Your task to perform on an android device: turn on improve location accuracy Image 0: 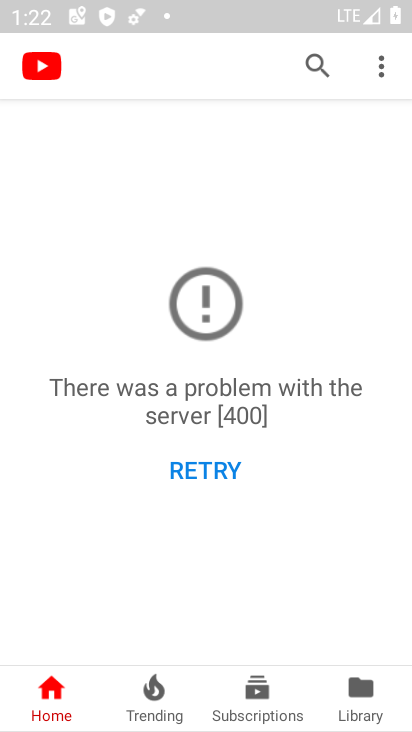
Step 0: press home button
Your task to perform on an android device: turn on improve location accuracy Image 1: 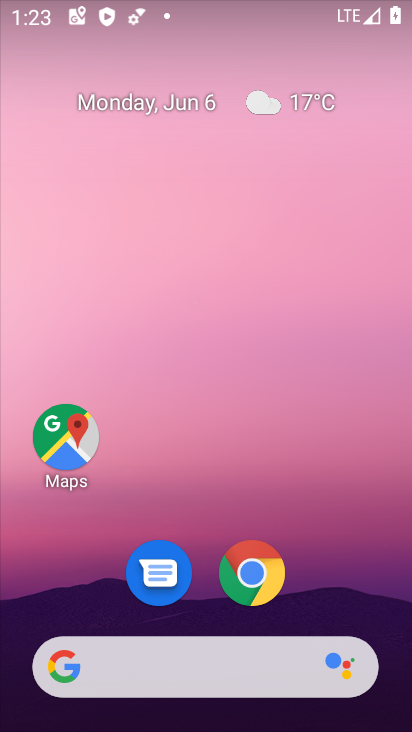
Step 1: drag from (360, 584) to (345, 216)
Your task to perform on an android device: turn on improve location accuracy Image 2: 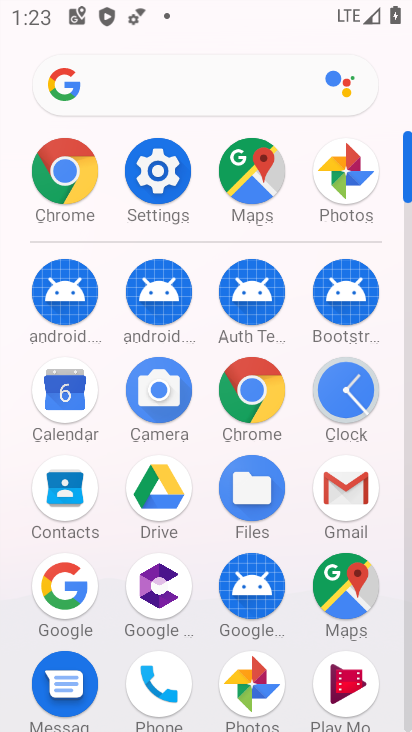
Step 2: click (159, 192)
Your task to perform on an android device: turn on improve location accuracy Image 3: 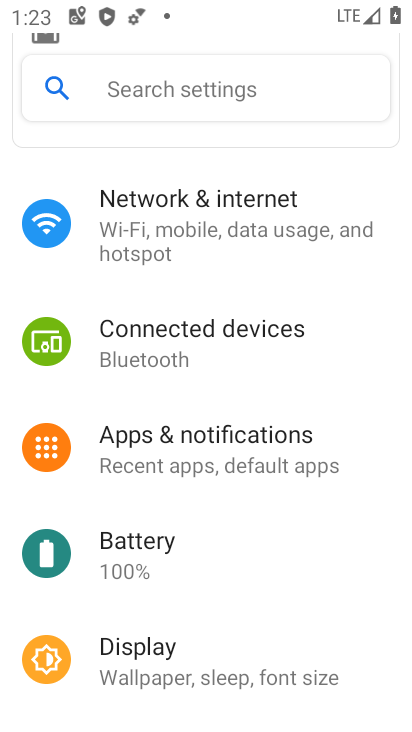
Step 3: drag from (365, 557) to (366, 431)
Your task to perform on an android device: turn on improve location accuracy Image 4: 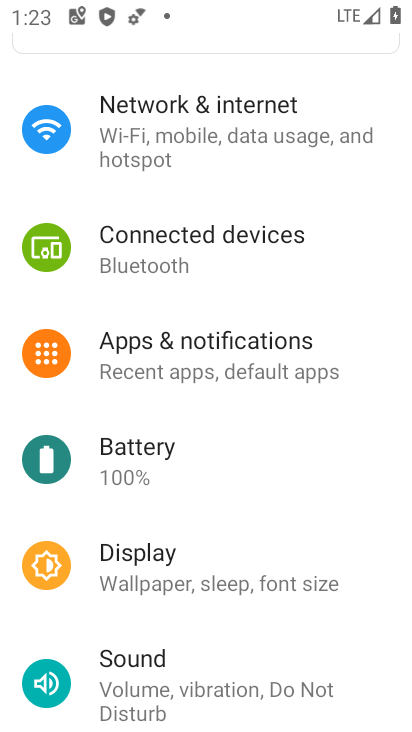
Step 4: drag from (363, 583) to (370, 462)
Your task to perform on an android device: turn on improve location accuracy Image 5: 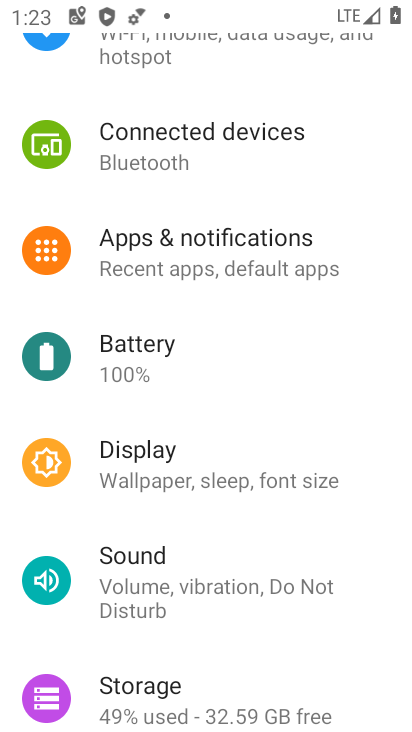
Step 5: drag from (348, 525) to (354, 377)
Your task to perform on an android device: turn on improve location accuracy Image 6: 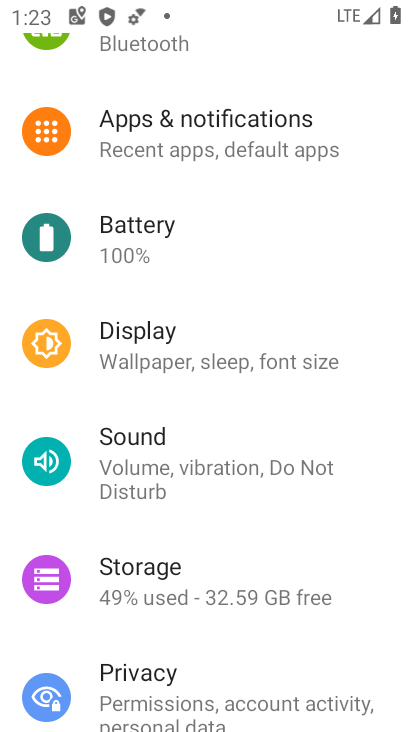
Step 6: drag from (381, 638) to (369, 444)
Your task to perform on an android device: turn on improve location accuracy Image 7: 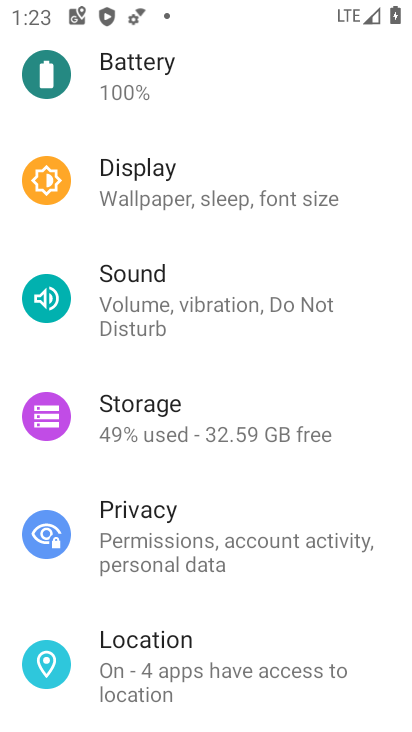
Step 7: drag from (340, 603) to (351, 426)
Your task to perform on an android device: turn on improve location accuracy Image 8: 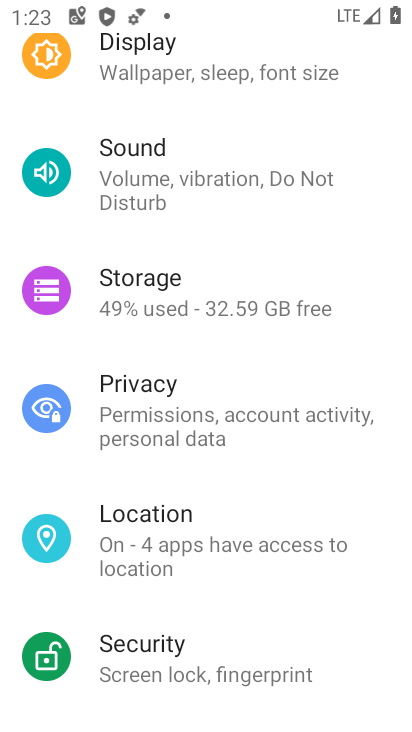
Step 8: click (283, 540)
Your task to perform on an android device: turn on improve location accuracy Image 9: 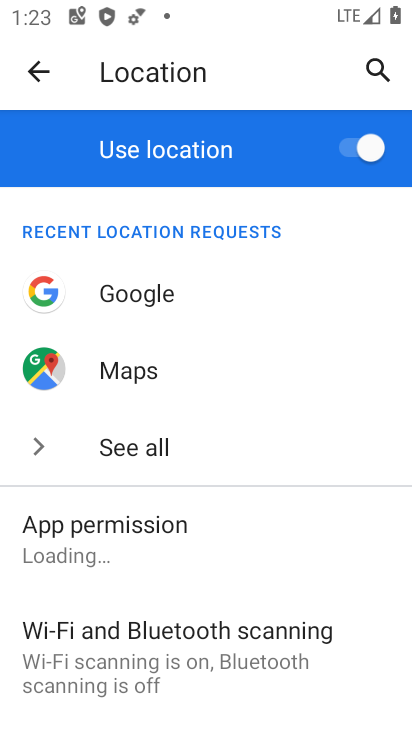
Step 9: drag from (371, 593) to (366, 432)
Your task to perform on an android device: turn on improve location accuracy Image 10: 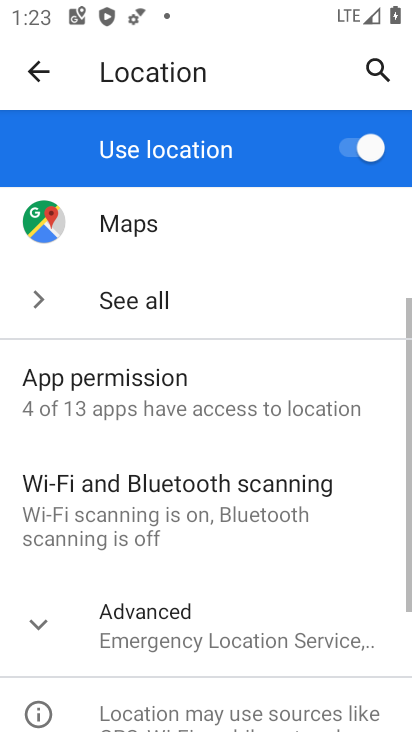
Step 10: click (243, 642)
Your task to perform on an android device: turn on improve location accuracy Image 11: 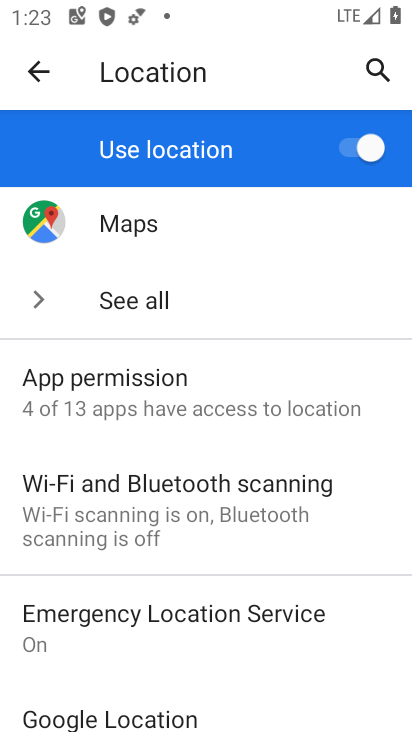
Step 11: drag from (318, 648) to (329, 476)
Your task to perform on an android device: turn on improve location accuracy Image 12: 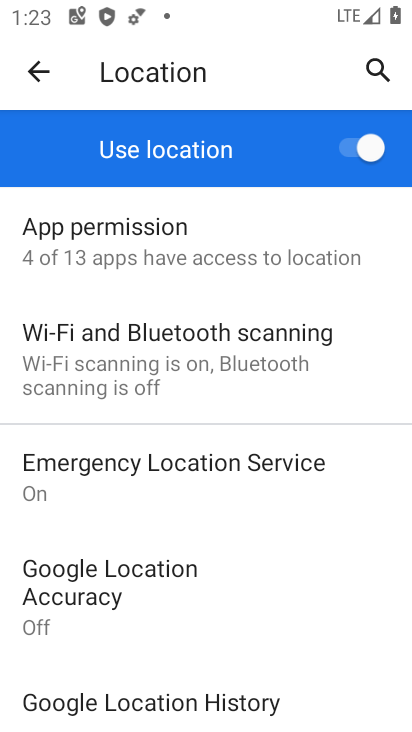
Step 12: click (57, 600)
Your task to perform on an android device: turn on improve location accuracy Image 13: 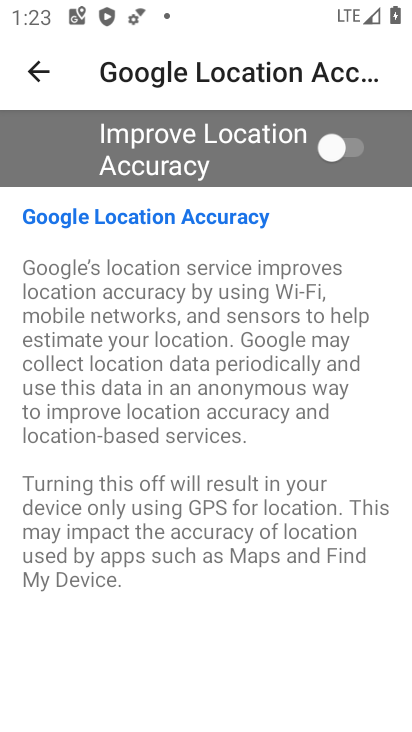
Step 13: click (332, 148)
Your task to perform on an android device: turn on improve location accuracy Image 14: 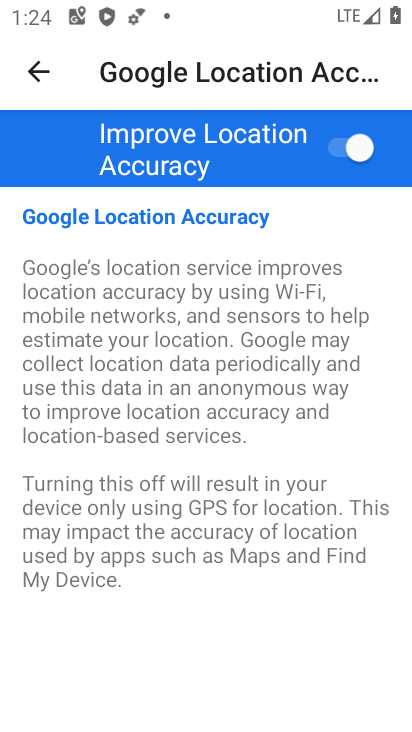
Step 14: task complete